Your task to perform on an android device: read, delete, or share a saved page in the chrome app Image 0: 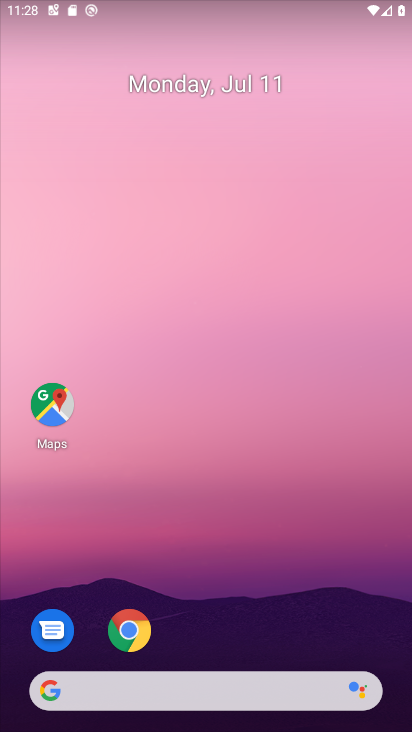
Step 0: click (144, 630)
Your task to perform on an android device: read, delete, or share a saved page in the chrome app Image 1: 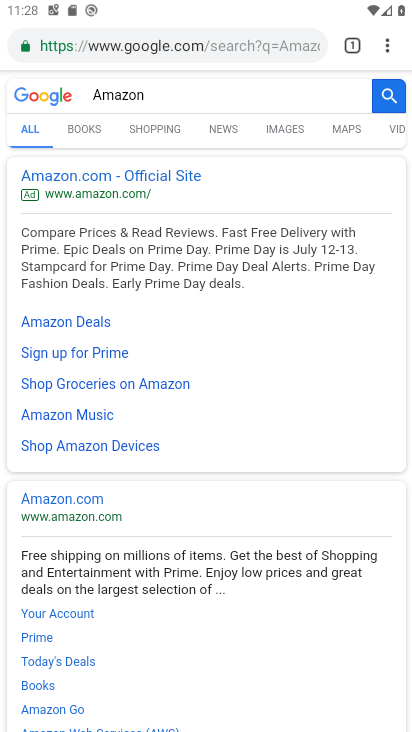
Step 1: click (385, 46)
Your task to perform on an android device: read, delete, or share a saved page in the chrome app Image 2: 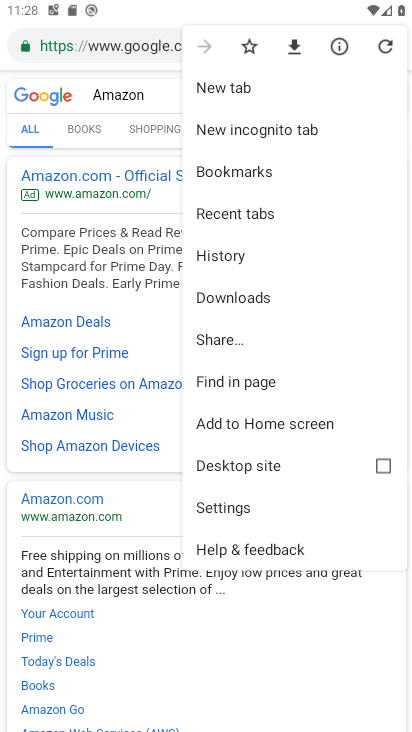
Step 2: click (242, 303)
Your task to perform on an android device: read, delete, or share a saved page in the chrome app Image 3: 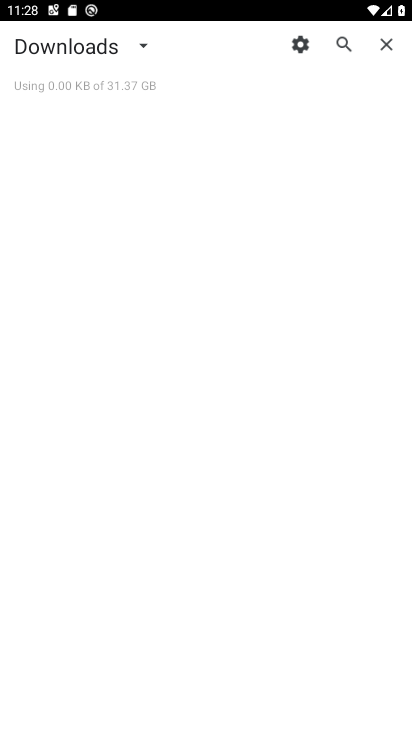
Step 3: task complete